Your task to perform on an android device: Go to Amazon Image 0: 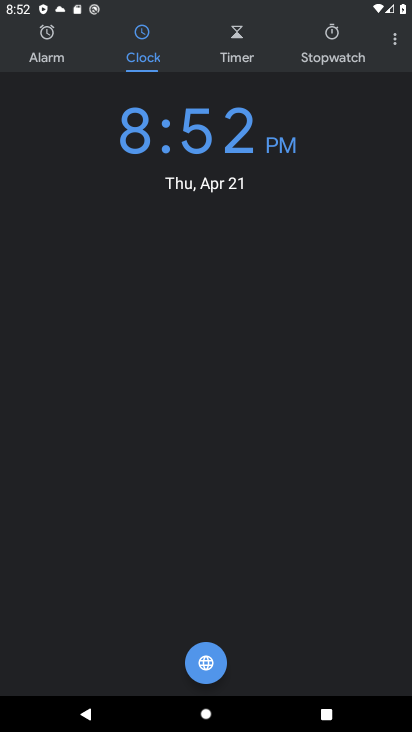
Step 0: press home button
Your task to perform on an android device: Go to Amazon Image 1: 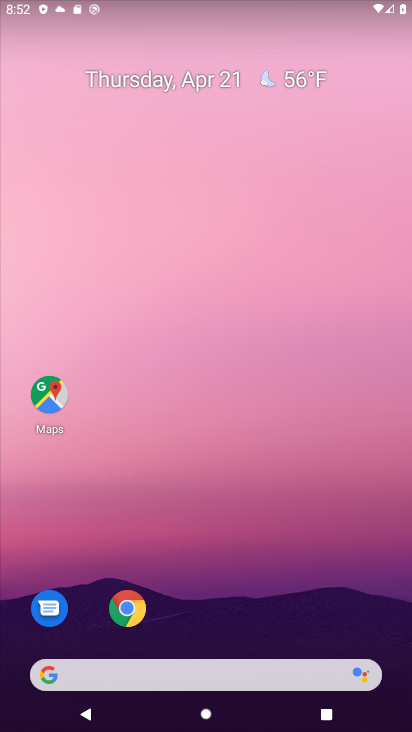
Step 1: click (128, 601)
Your task to perform on an android device: Go to Amazon Image 2: 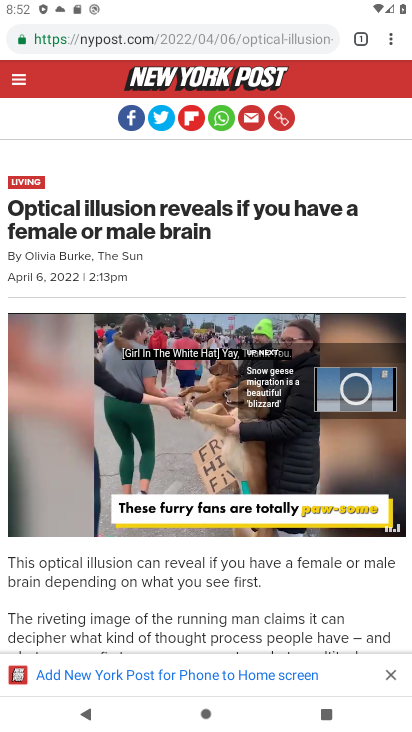
Step 2: click (393, 37)
Your task to perform on an android device: Go to Amazon Image 3: 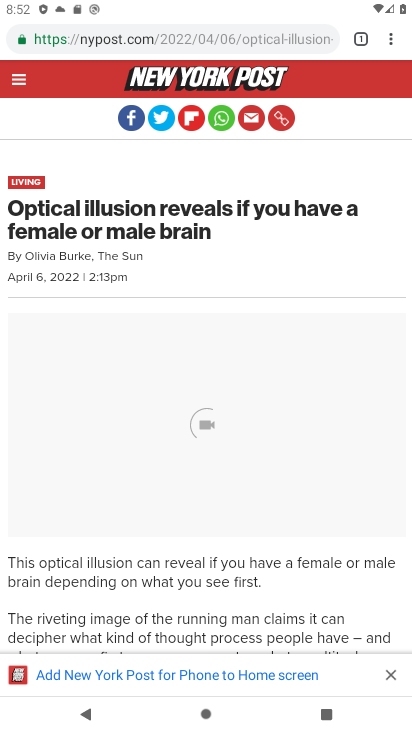
Step 3: click (385, 37)
Your task to perform on an android device: Go to Amazon Image 4: 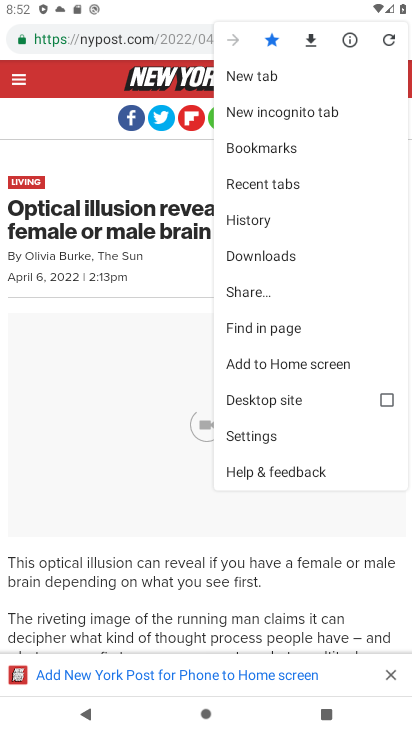
Step 4: click (339, 74)
Your task to perform on an android device: Go to Amazon Image 5: 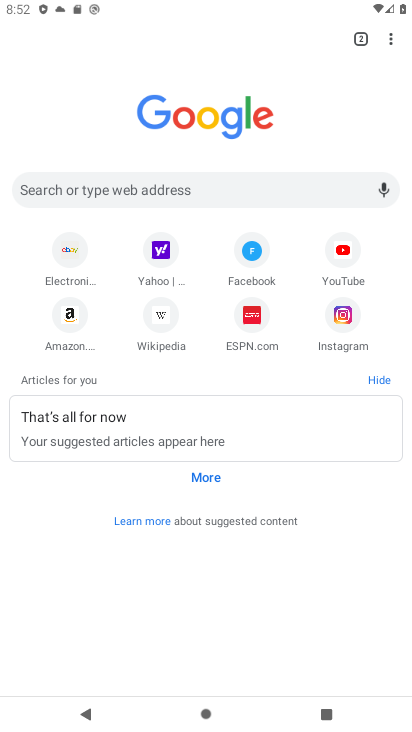
Step 5: click (72, 308)
Your task to perform on an android device: Go to Amazon Image 6: 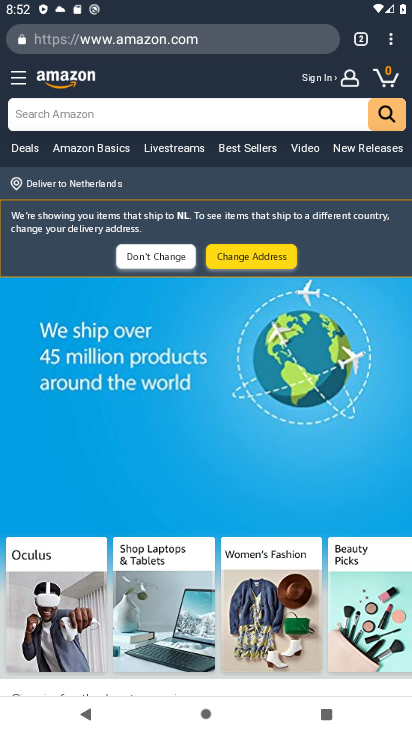
Step 6: task complete